Your task to perform on an android device: turn off notifications settings in the gmail app Image 0: 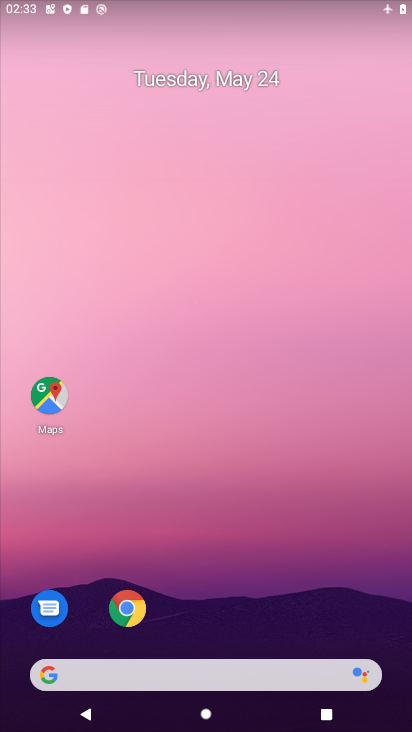
Step 0: drag from (241, 613) to (222, 212)
Your task to perform on an android device: turn off notifications settings in the gmail app Image 1: 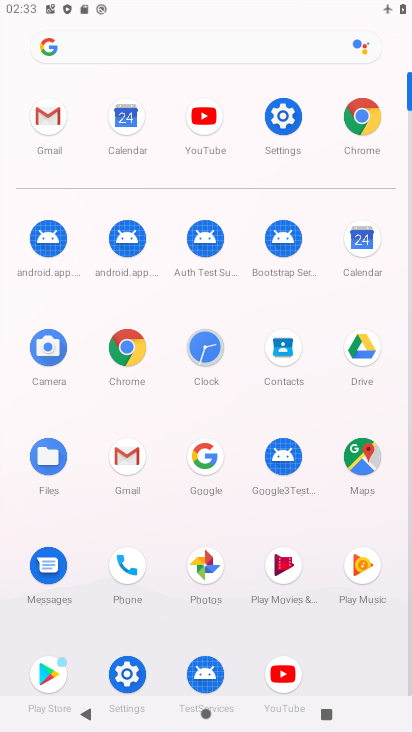
Step 1: click (34, 132)
Your task to perform on an android device: turn off notifications settings in the gmail app Image 2: 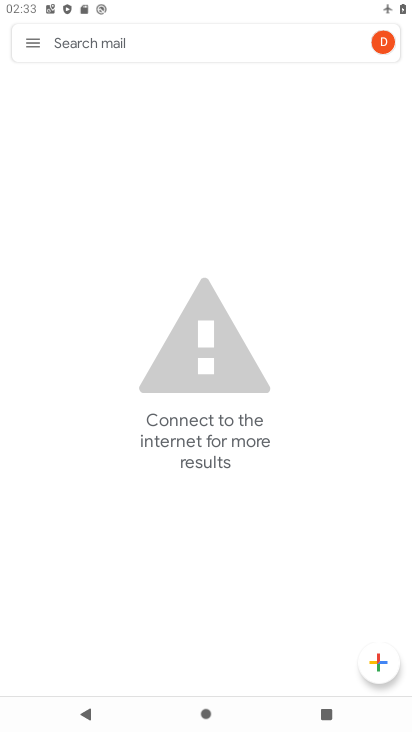
Step 2: click (28, 47)
Your task to perform on an android device: turn off notifications settings in the gmail app Image 3: 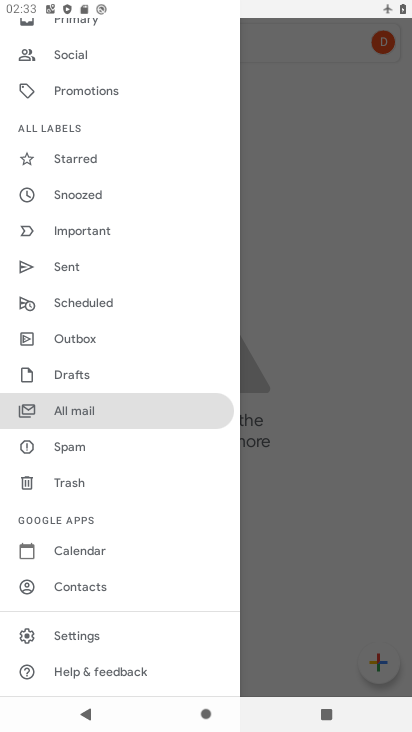
Step 3: click (120, 622)
Your task to perform on an android device: turn off notifications settings in the gmail app Image 4: 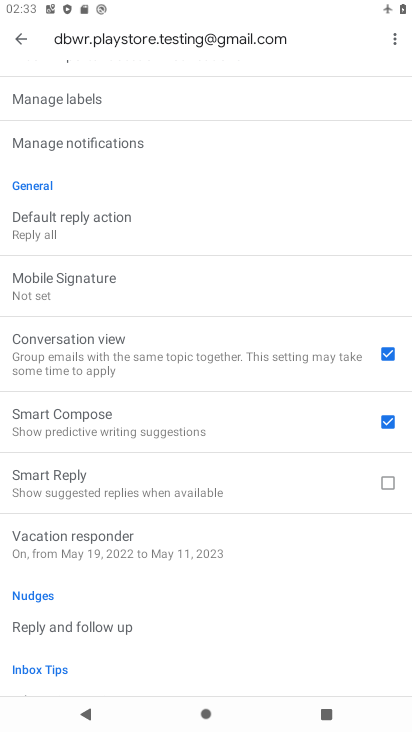
Step 4: click (148, 147)
Your task to perform on an android device: turn off notifications settings in the gmail app Image 5: 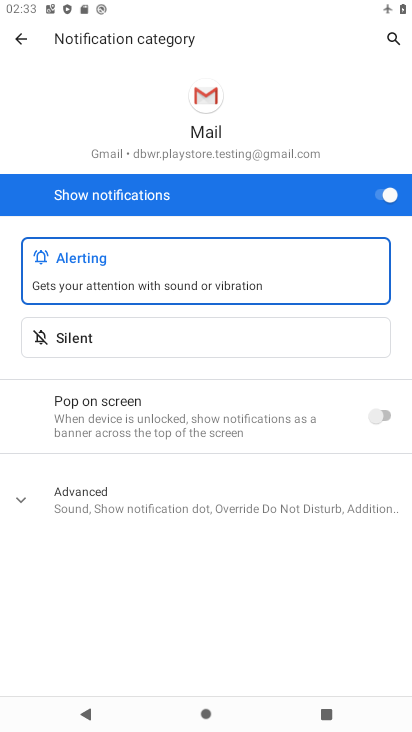
Step 5: click (163, 490)
Your task to perform on an android device: turn off notifications settings in the gmail app Image 6: 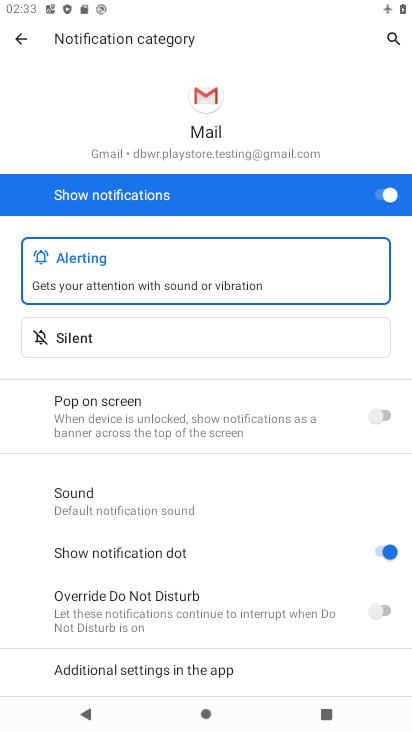
Step 6: click (384, 188)
Your task to perform on an android device: turn off notifications settings in the gmail app Image 7: 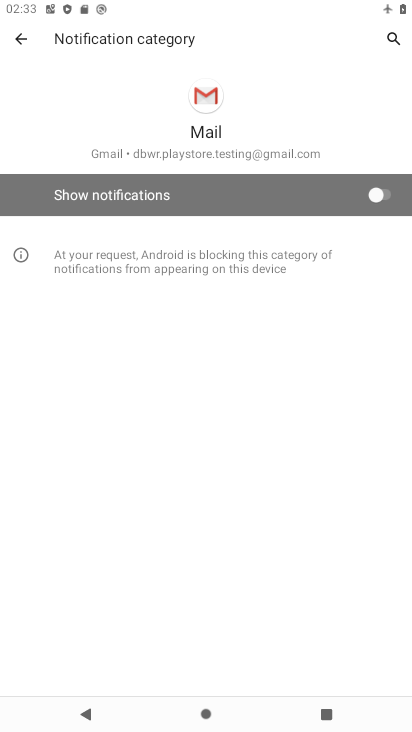
Step 7: task complete